Your task to perform on an android device: toggle airplane mode Image 0: 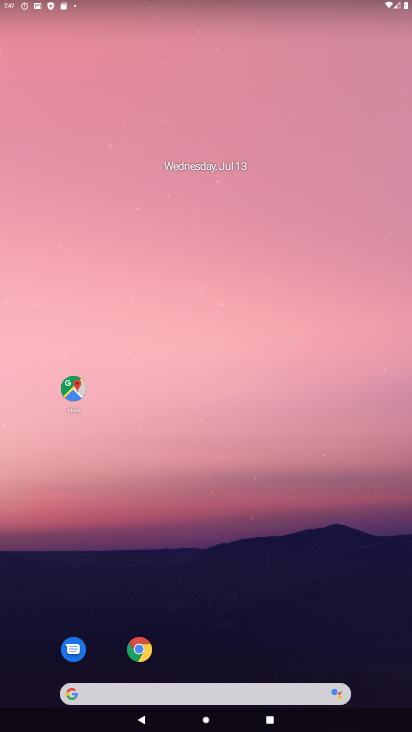
Step 0: drag from (180, 609) to (183, 166)
Your task to perform on an android device: toggle airplane mode Image 1: 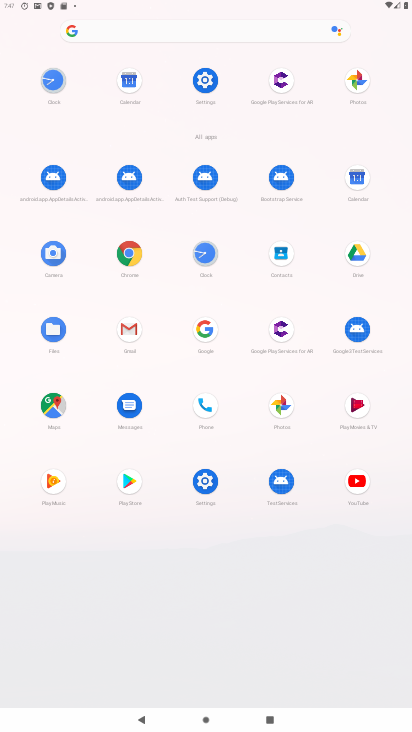
Step 1: click (203, 82)
Your task to perform on an android device: toggle airplane mode Image 2: 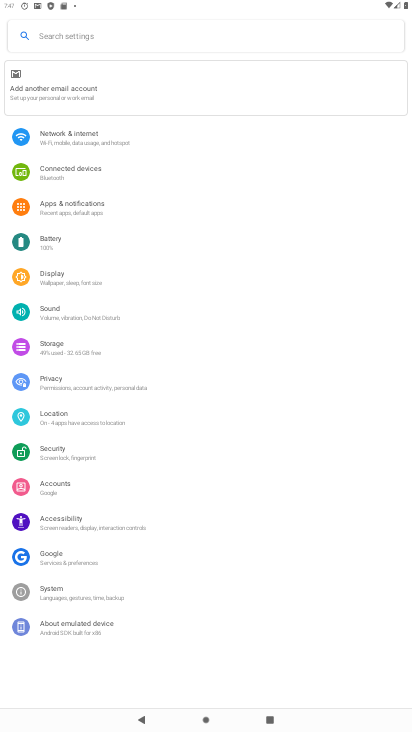
Step 2: click (106, 142)
Your task to perform on an android device: toggle airplane mode Image 3: 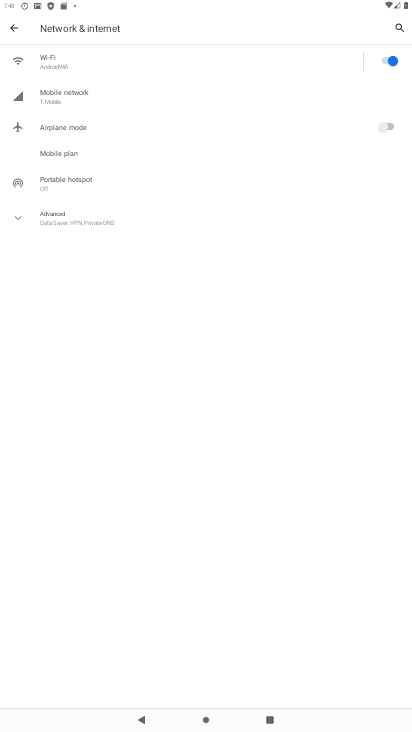
Step 3: click (398, 126)
Your task to perform on an android device: toggle airplane mode Image 4: 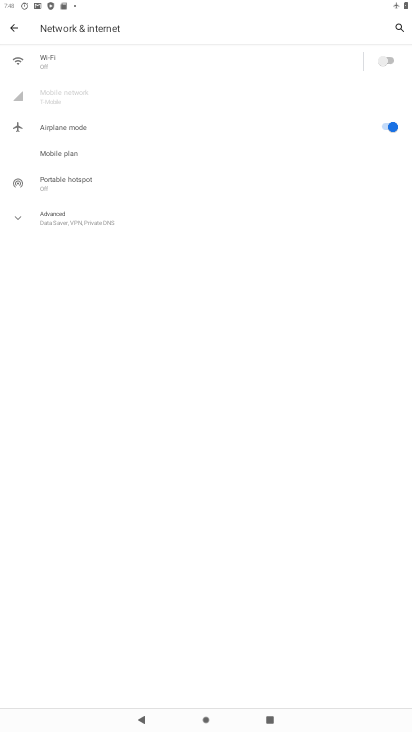
Step 4: task complete